Your task to perform on an android device: change timer sound Image 0: 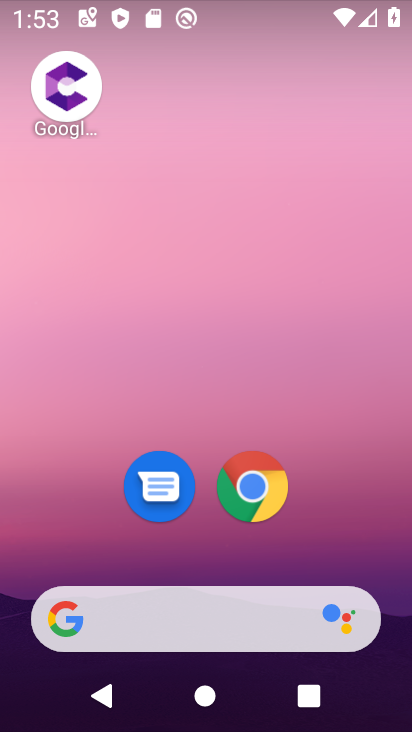
Step 0: drag from (401, 687) to (369, 233)
Your task to perform on an android device: change timer sound Image 1: 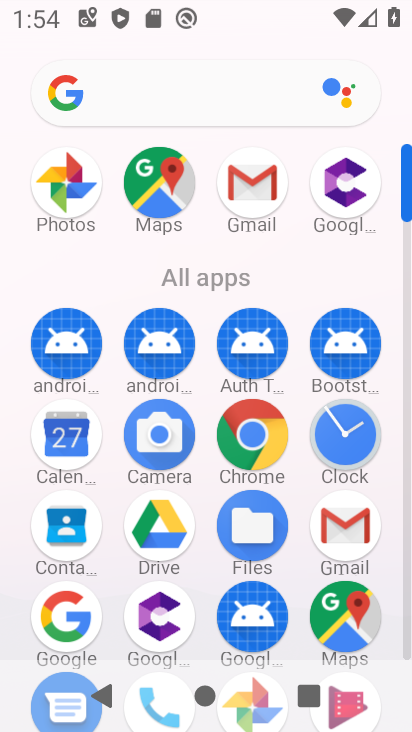
Step 1: click (347, 433)
Your task to perform on an android device: change timer sound Image 2: 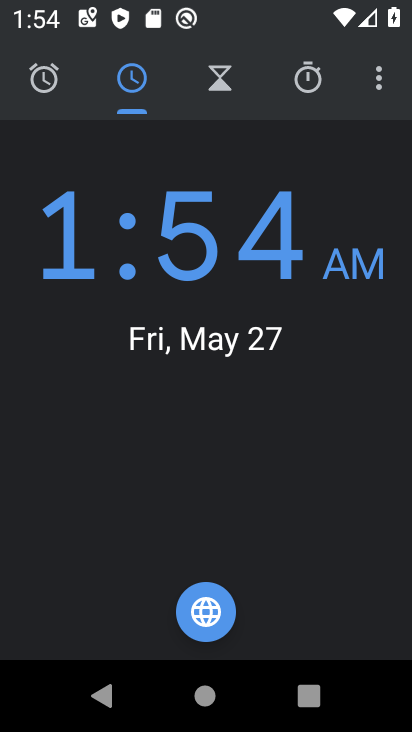
Step 2: click (376, 76)
Your task to perform on an android device: change timer sound Image 3: 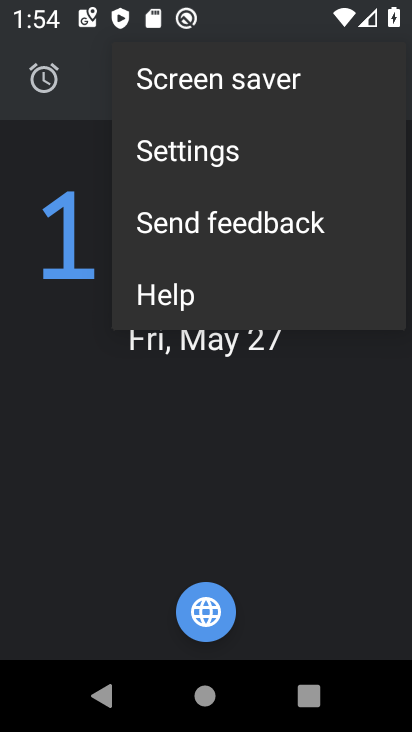
Step 3: click (219, 161)
Your task to perform on an android device: change timer sound Image 4: 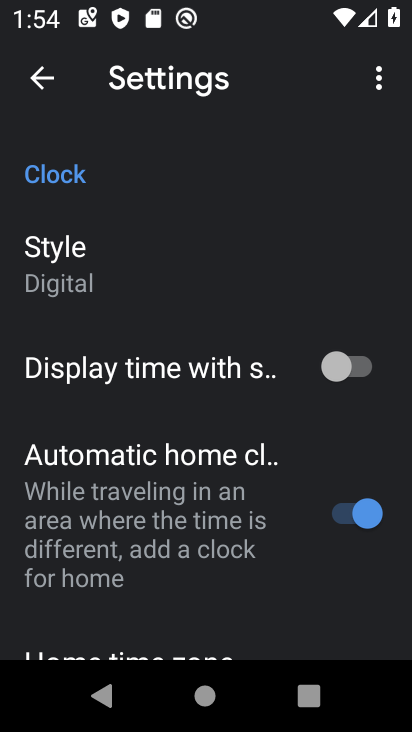
Step 4: drag from (205, 564) to (236, 306)
Your task to perform on an android device: change timer sound Image 5: 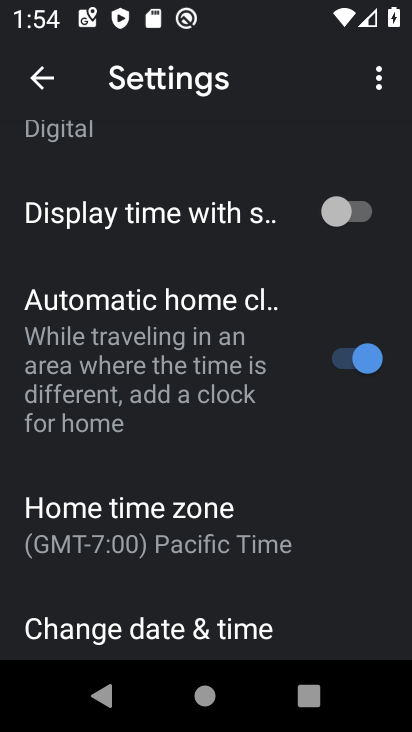
Step 5: drag from (171, 578) to (187, 244)
Your task to perform on an android device: change timer sound Image 6: 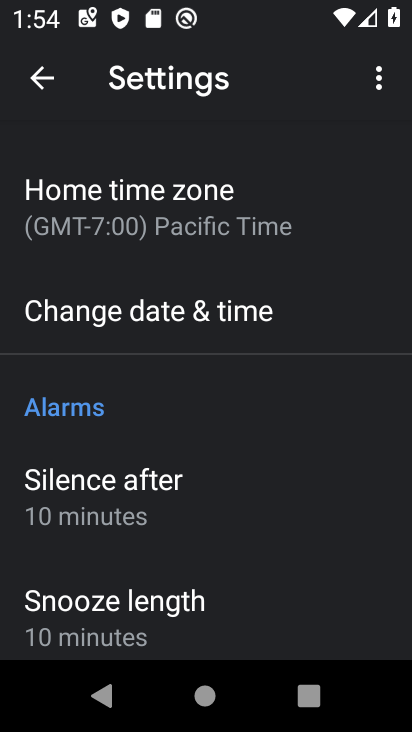
Step 6: drag from (252, 535) to (248, 290)
Your task to perform on an android device: change timer sound Image 7: 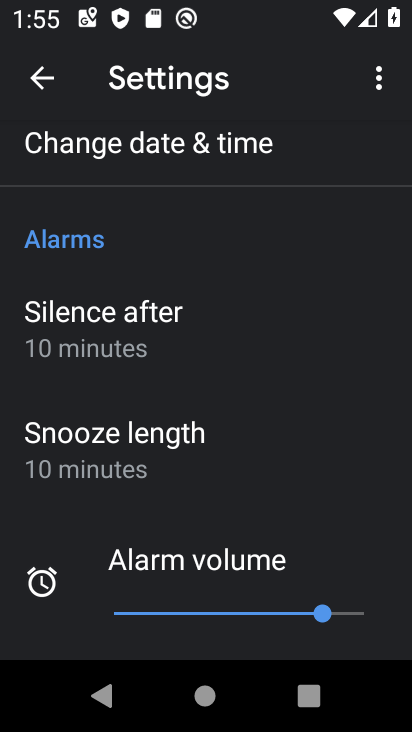
Step 7: drag from (286, 504) to (280, 134)
Your task to perform on an android device: change timer sound Image 8: 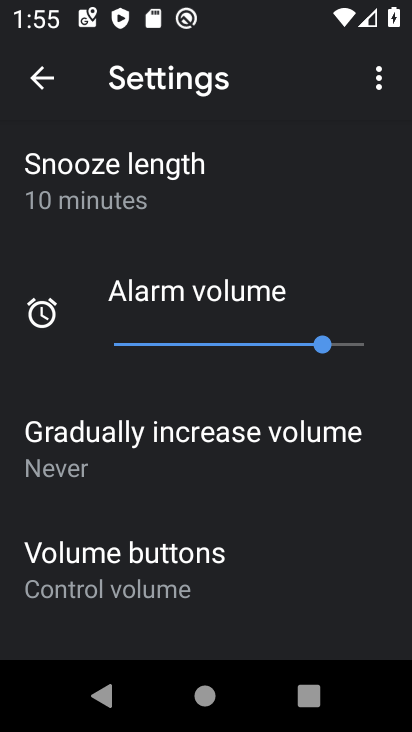
Step 8: drag from (320, 519) to (302, 212)
Your task to perform on an android device: change timer sound Image 9: 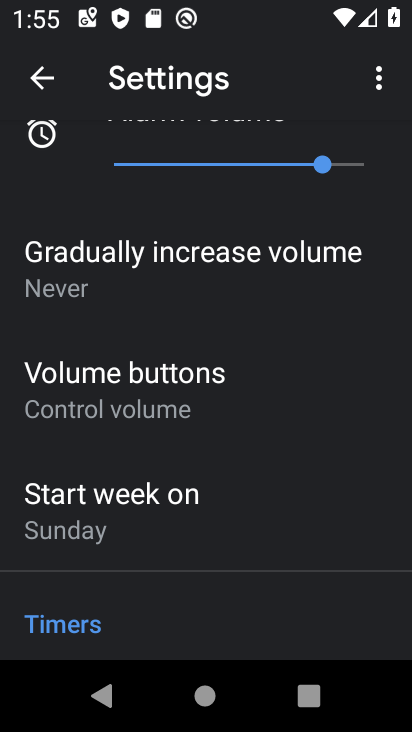
Step 9: drag from (269, 541) to (263, 278)
Your task to perform on an android device: change timer sound Image 10: 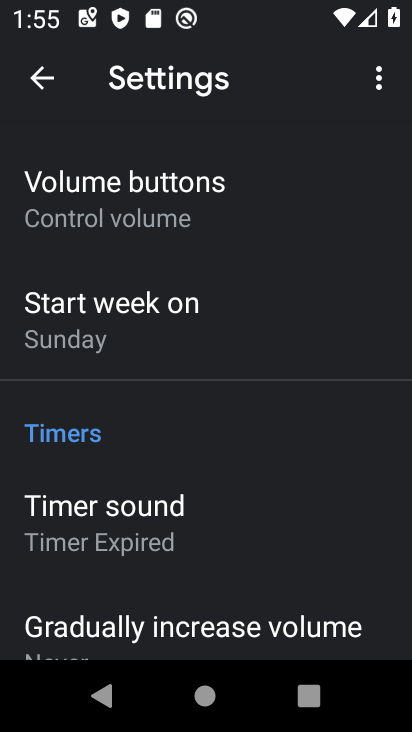
Step 10: click (92, 527)
Your task to perform on an android device: change timer sound Image 11: 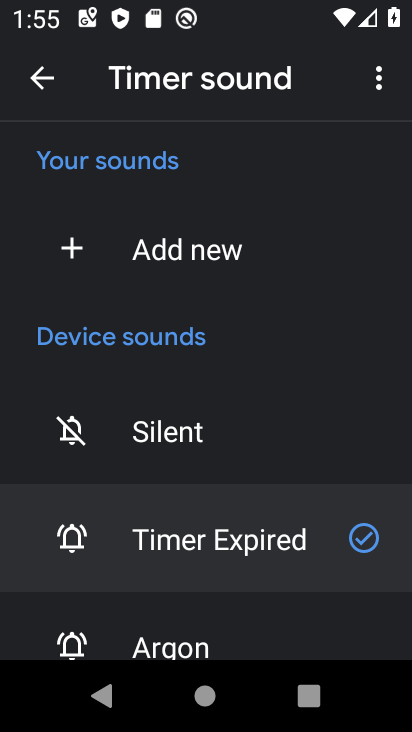
Step 11: click (162, 649)
Your task to perform on an android device: change timer sound Image 12: 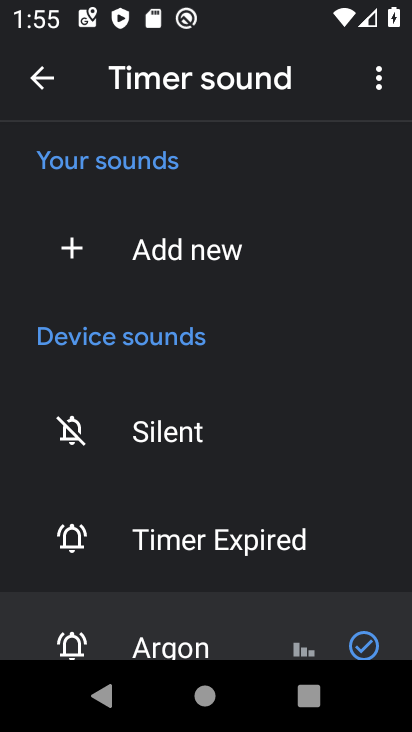
Step 12: task complete